Your task to perform on an android device: toggle notifications settings in the gmail app Image 0: 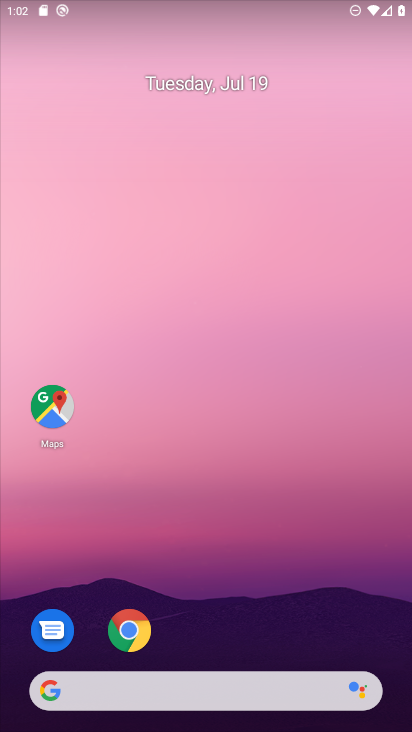
Step 0: press home button
Your task to perform on an android device: toggle notifications settings in the gmail app Image 1: 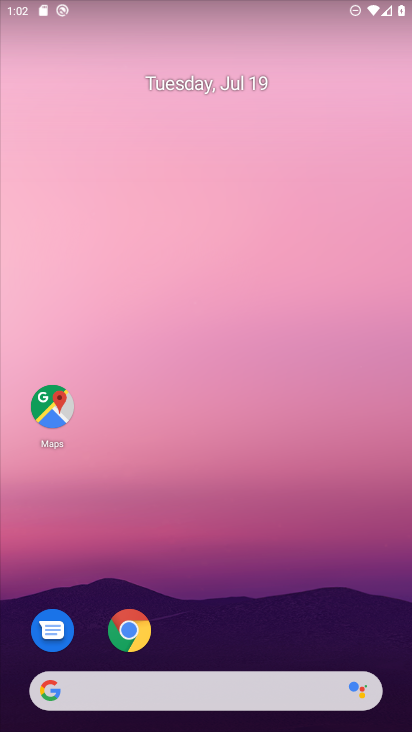
Step 1: drag from (203, 690) to (309, 94)
Your task to perform on an android device: toggle notifications settings in the gmail app Image 2: 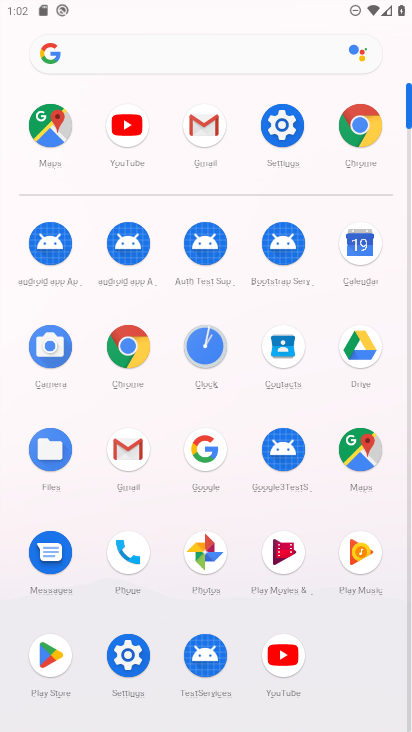
Step 2: click (196, 127)
Your task to perform on an android device: toggle notifications settings in the gmail app Image 3: 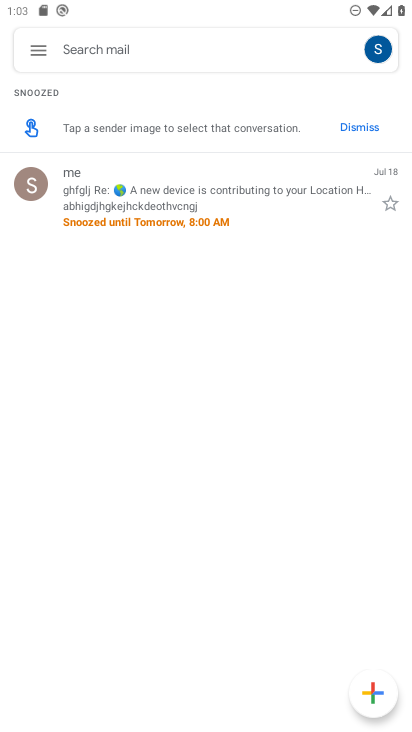
Step 3: click (35, 44)
Your task to perform on an android device: toggle notifications settings in the gmail app Image 4: 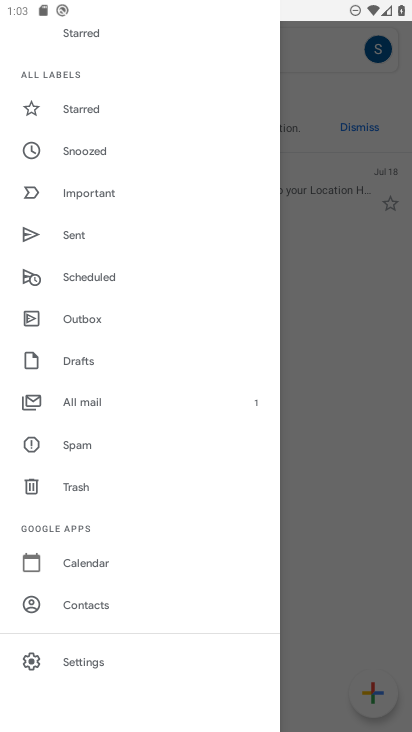
Step 4: click (91, 665)
Your task to perform on an android device: toggle notifications settings in the gmail app Image 5: 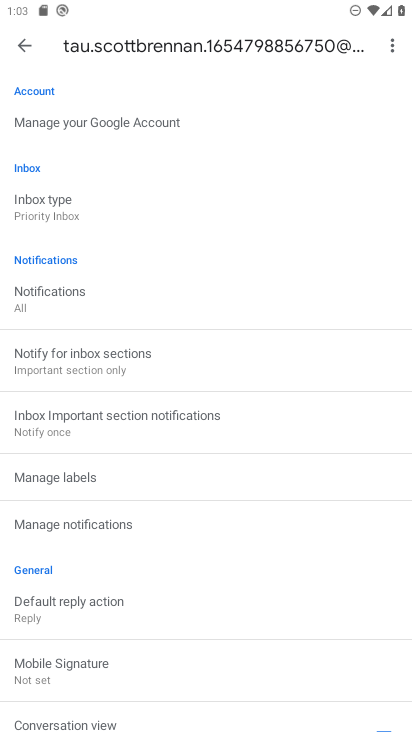
Step 5: click (56, 288)
Your task to perform on an android device: toggle notifications settings in the gmail app Image 6: 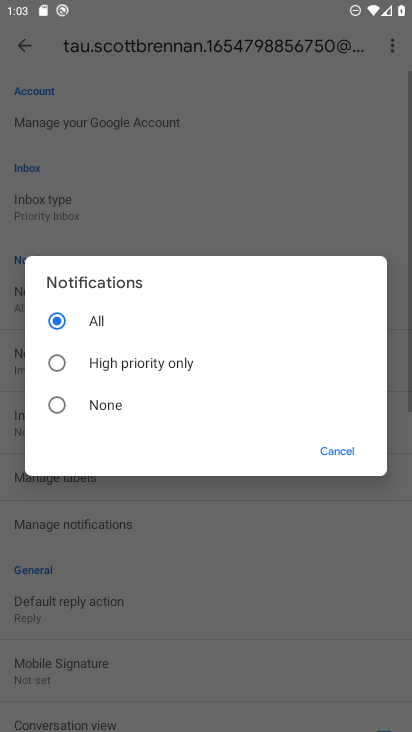
Step 6: click (55, 362)
Your task to perform on an android device: toggle notifications settings in the gmail app Image 7: 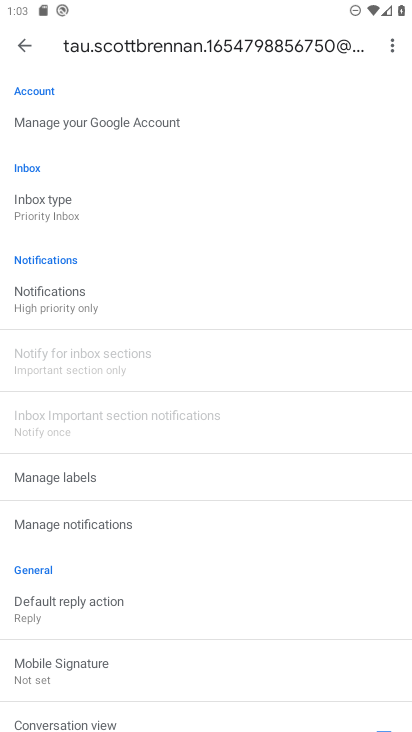
Step 7: task complete